Your task to perform on an android device: install app "Adobe Express: Graphic Design" Image 0: 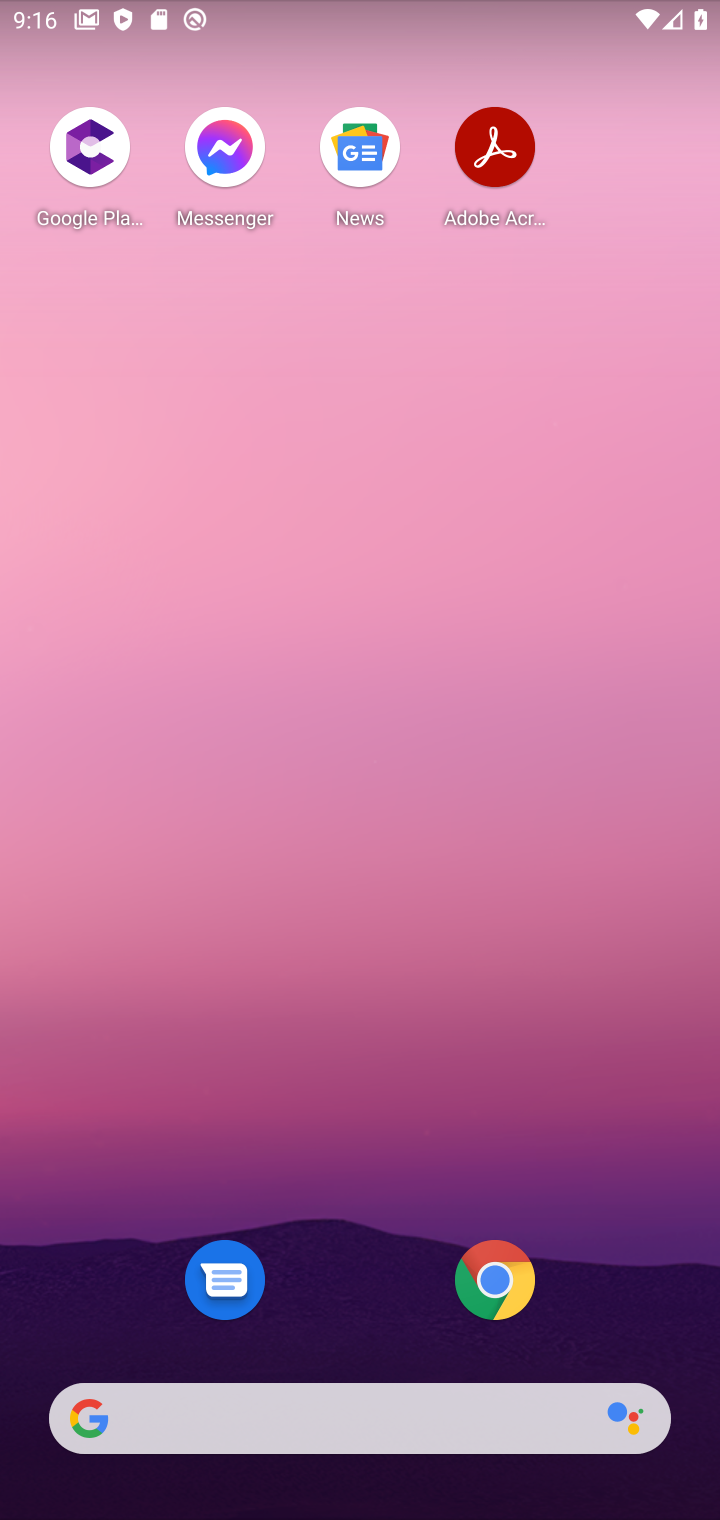
Step 0: drag from (209, 1406) to (416, 237)
Your task to perform on an android device: install app "Adobe Express: Graphic Design" Image 1: 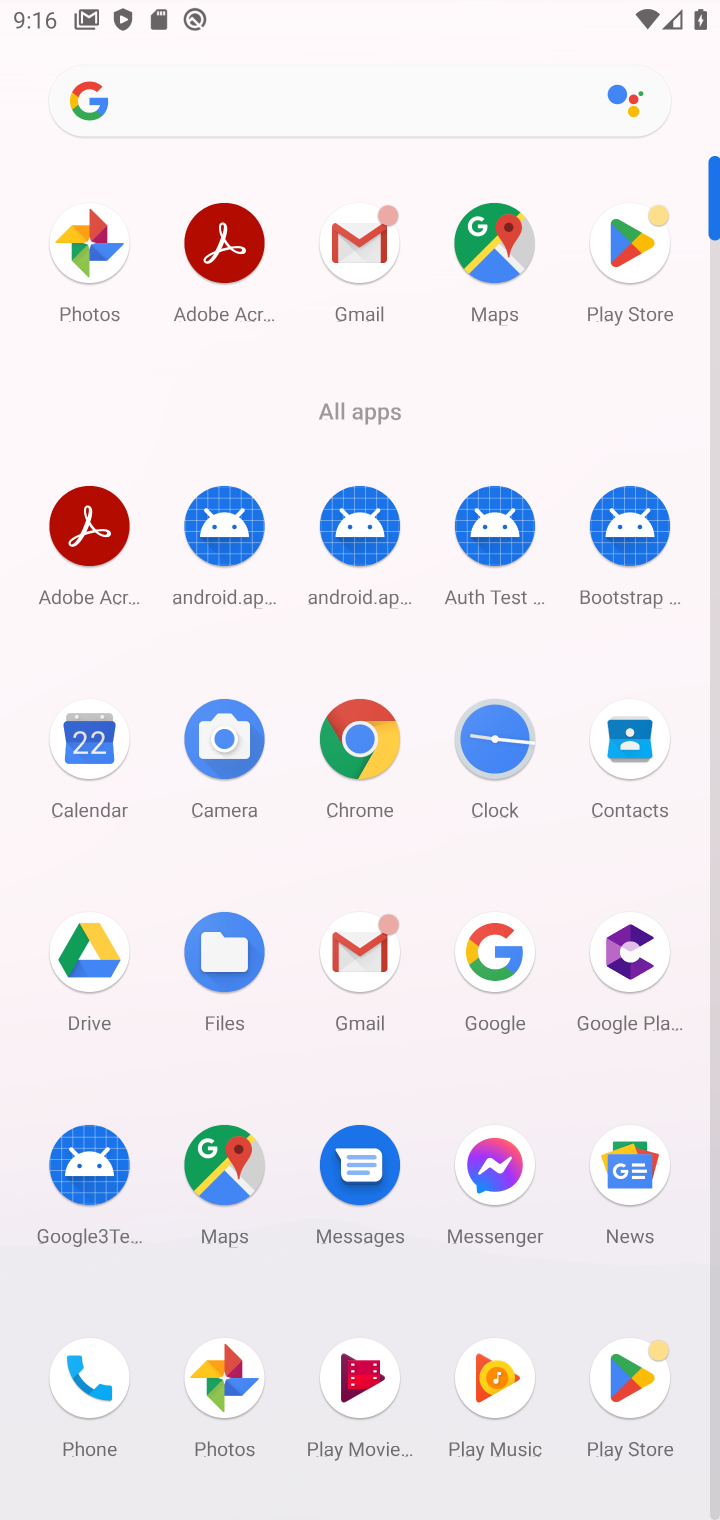
Step 1: click (654, 235)
Your task to perform on an android device: install app "Adobe Express: Graphic Design" Image 2: 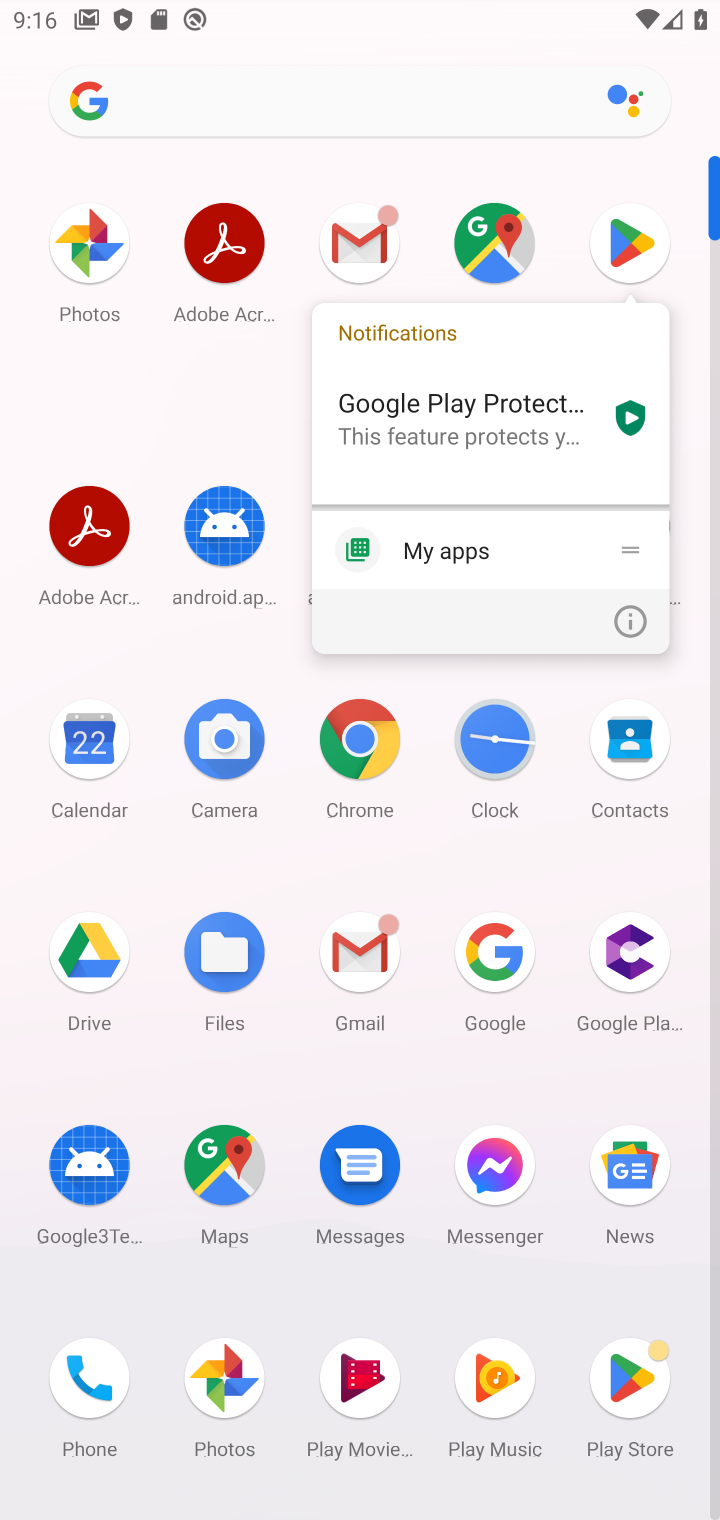
Step 2: click (641, 243)
Your task to perform on an android device: install app "Adobe Express: Graphic Design" Image 3: 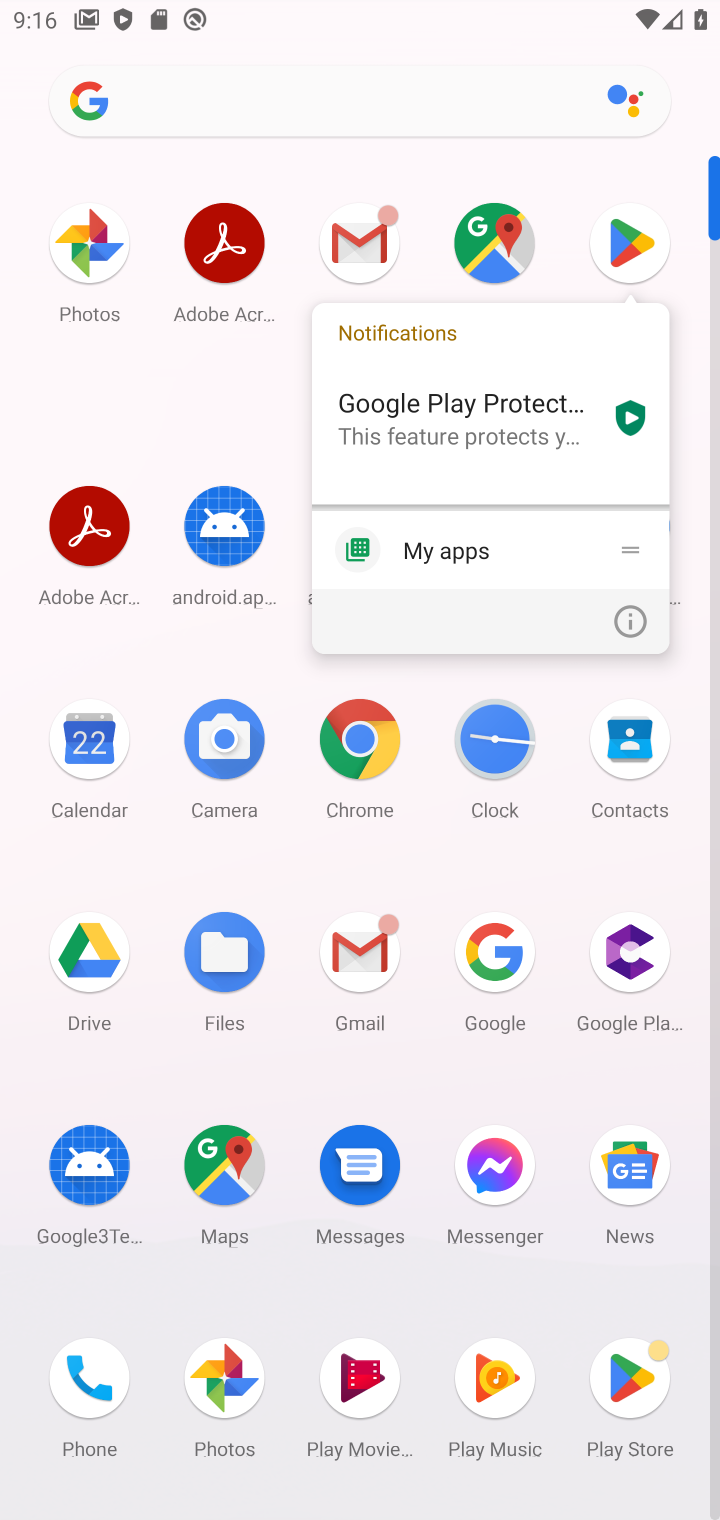
Step 3: click (624, 253)
Your task to perform on an android device: install app "Adobe Express: Graphic Design" Image 4: 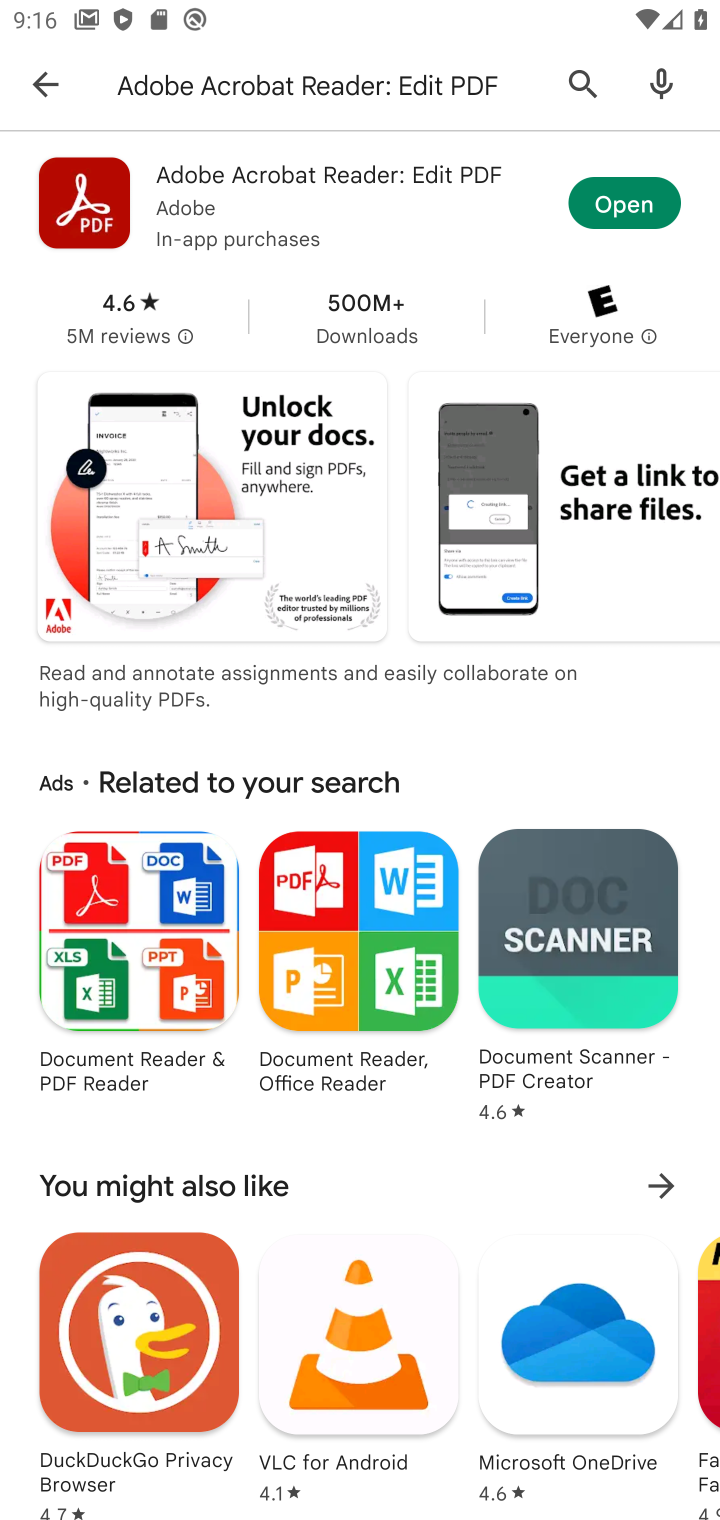
Step 4: click (631, 206)
Your task to perform on an android device: install app "Adobe Express: Graphic Design" Image 5: 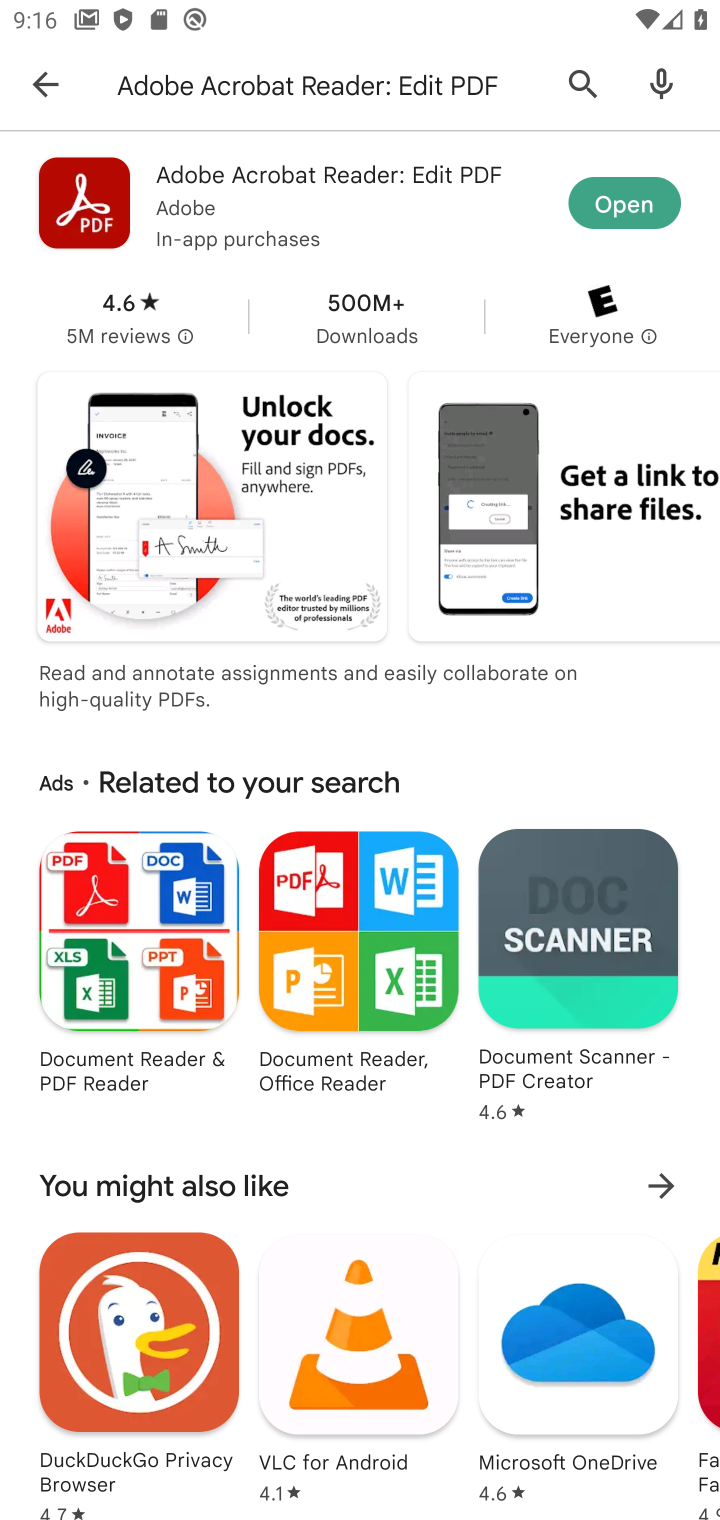
Step 5: task complete